Your task to perform on an android device: Do I have any events this weekend? Image 0: 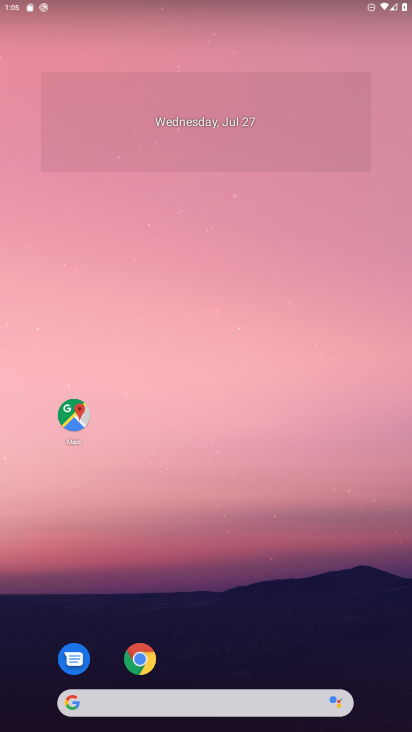
Step 0: drag from (241, 665) to (236, 179)
Your task to perform on an android device: Do I have any events this weekend? Image 1: 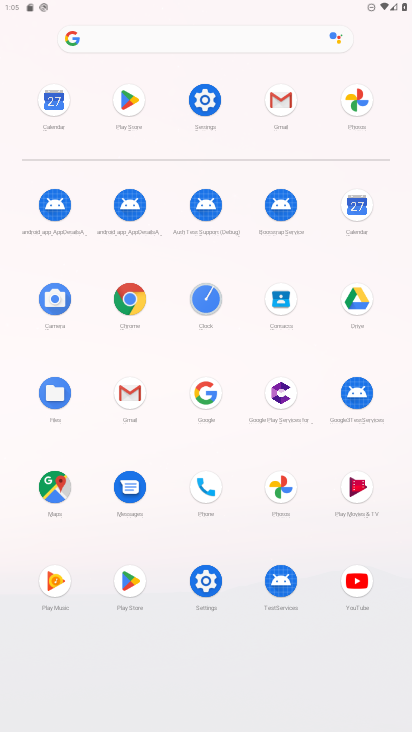
Step 1: click (354, 215)
Your task to perform on an android device: Do I have any events this weekend? Image 2: 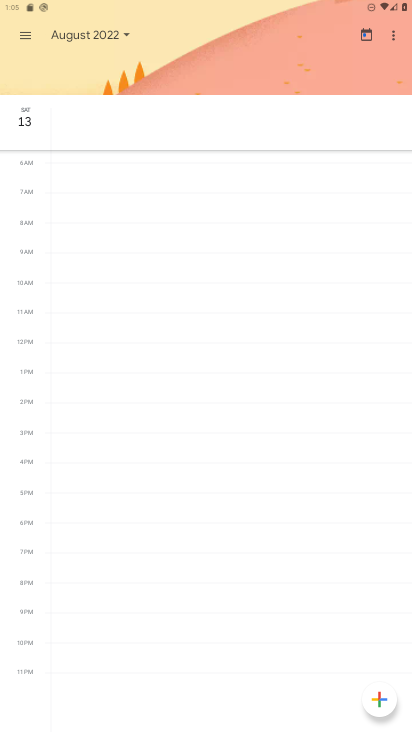
Step 2: click (22, 34)
Your task to perform on an android device: Do I have any events this weekend? Image 3: 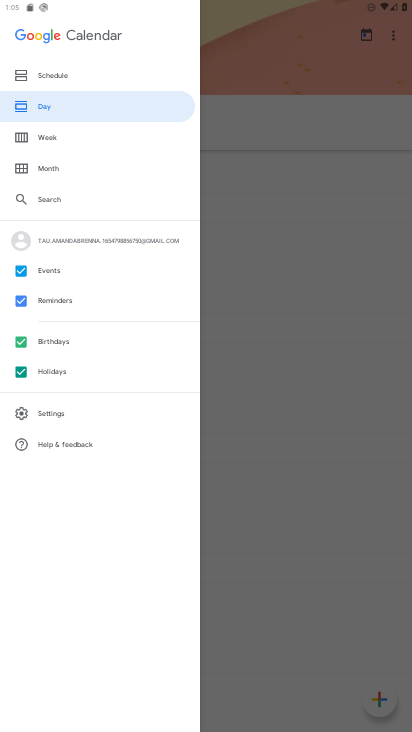
Step 3: click (45, 143)
Your task to perform on an android device: Do I have any events this weekend? Image 4: 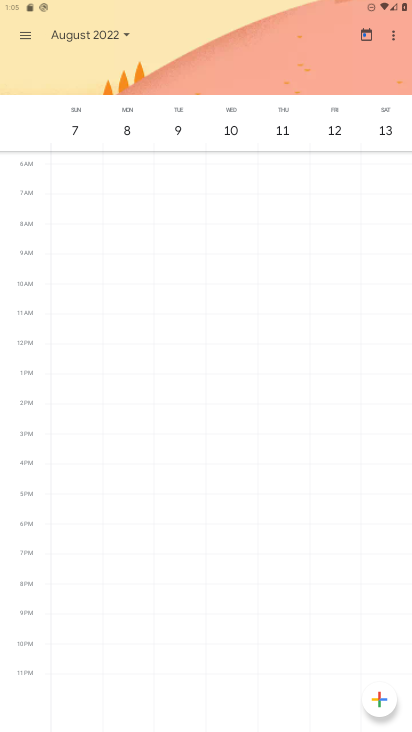
Step 4: click (22, 29)
Your task to perform on an android device: Do I have any events this weekend? Image 5: 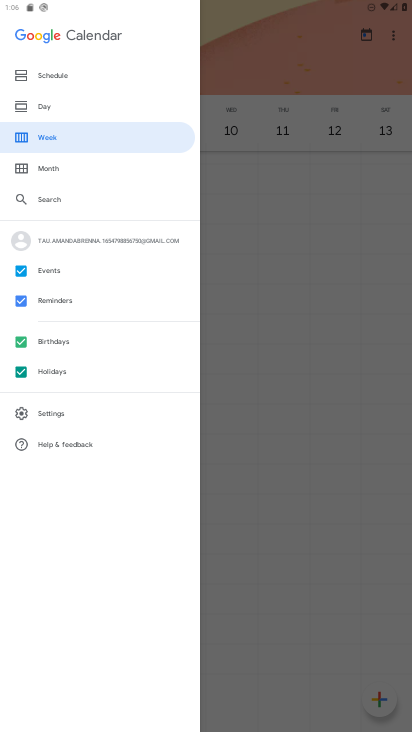
Step 5: click (389, 33)
Your task to perform on an android device: Do I have any events this weekend? Image 6: 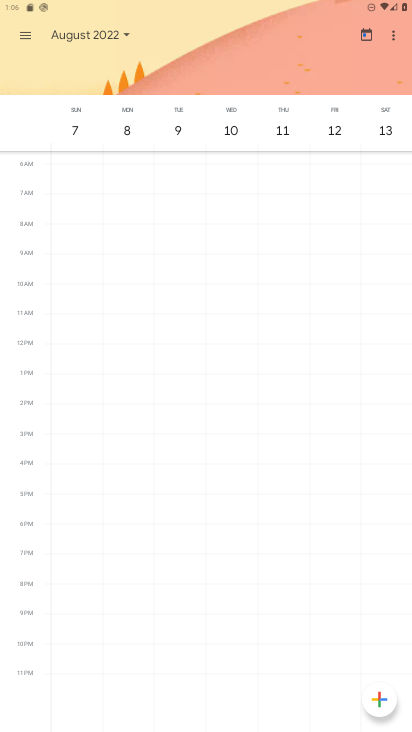
Step 6: click (396, 36)
Your task to perform on an android device: Do I have any events this weekend? Image 7: 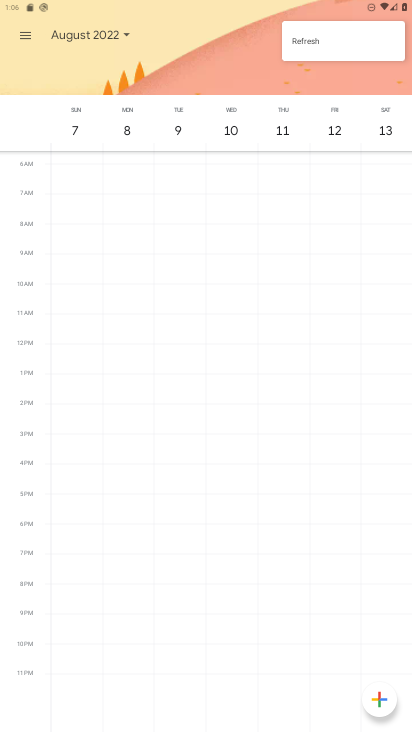
Step 7: click (294, 32)
Your task to perform on an android device: Do I have any events this weekend? Image 8: 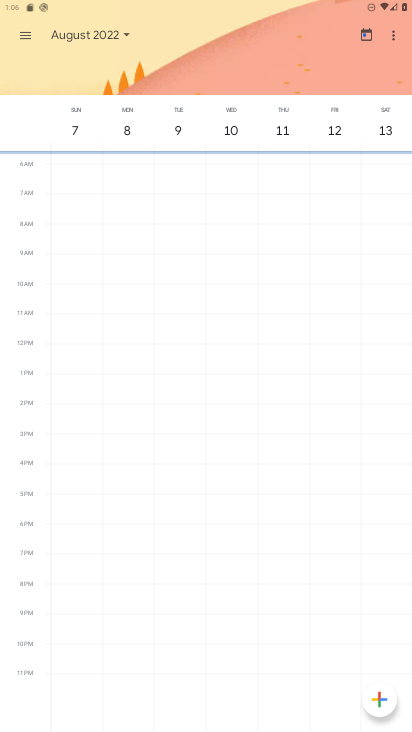
Step 8: click (365, 32)
Your task to perform on an android device: Do I have any events this weekend? Image 9: 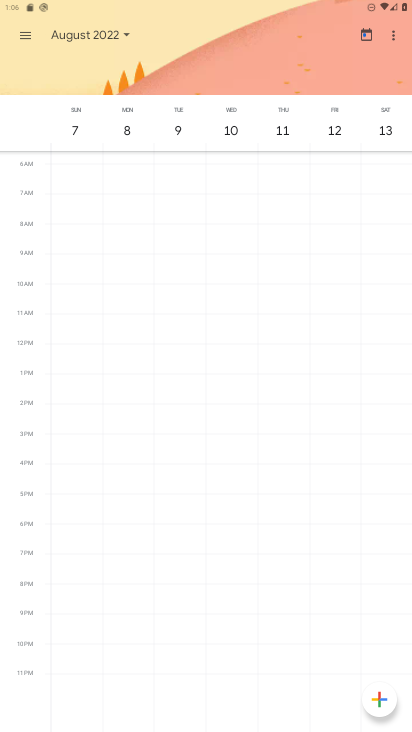
Step 9: click (363, 33)
Your task to perform on an android device: Do I have any events this weekend? Image 10: 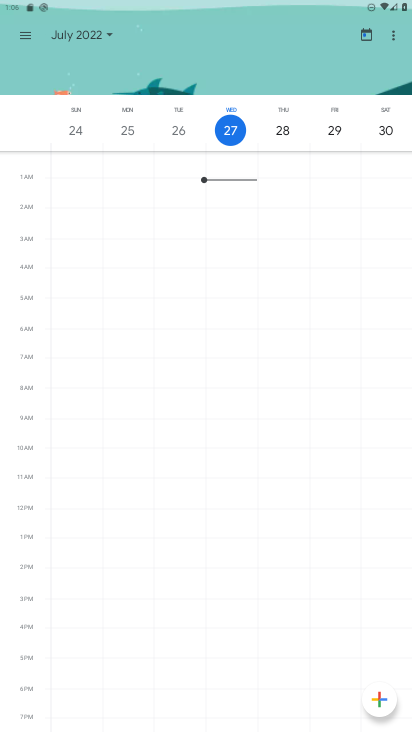
Step 10: task complete